Your task to perform on an android device: manage bookmarks in the chrome app Image 0: 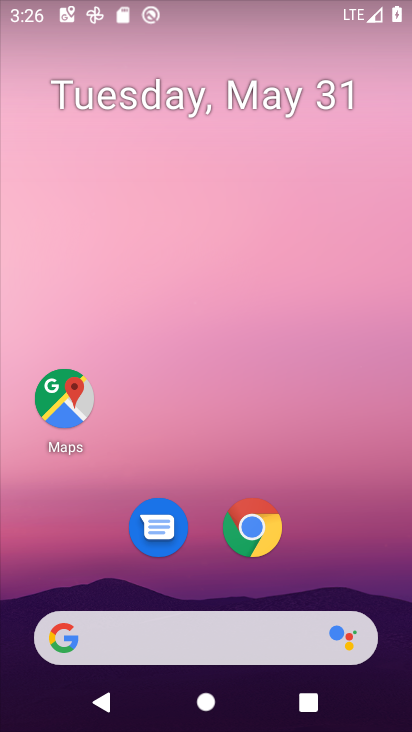
Step 0: drag from (372, 534) to (405, 114)
Your task to perform on an android device: manage bookmarks in the chrome app Image 1: 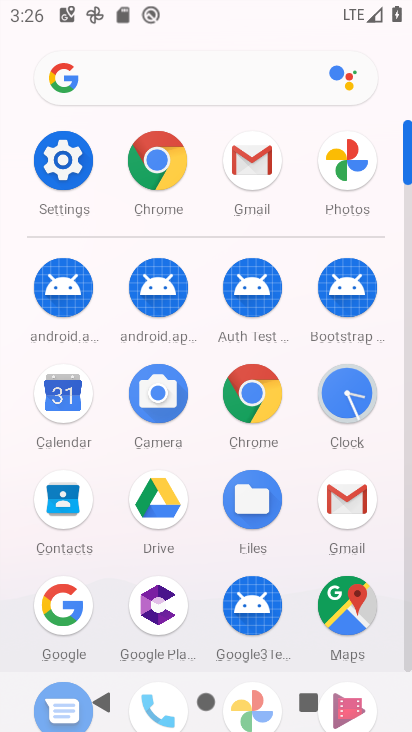
Step 1: click (158, 176)
Your task to perform on an android device: manage bookmarks in the chrome app Image 2: 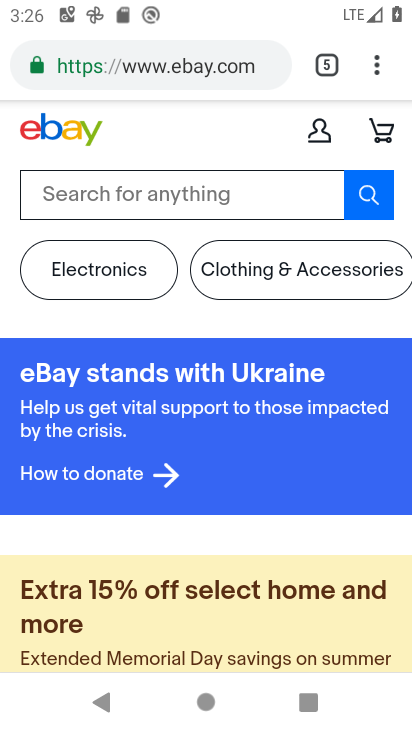
Step 2: drag from (381, 73) to (184, 259)
Your task to perform on an android device: manage bookmarks in the chrome app Image 3: 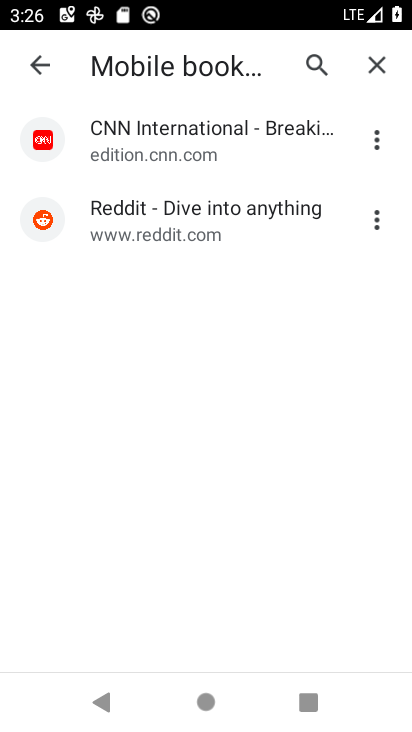
Step 3: click (241, 147)
Your task to perform on an android device: manage bookmarks in the chrome app Image 4: 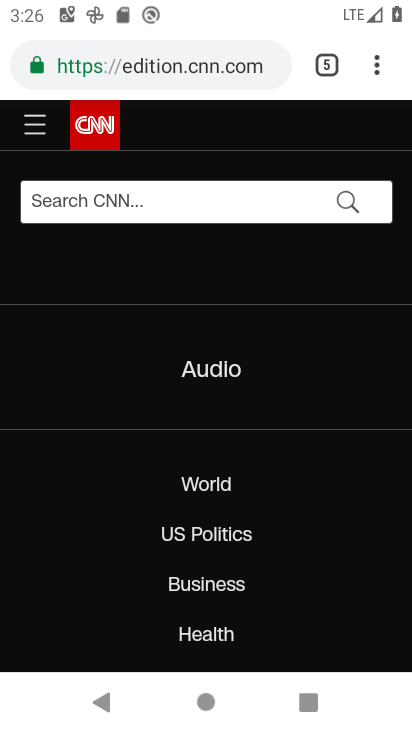
Step 4: click (374, 77)
Your task to perform on an android device: manage bookmarks in the chrome app Image 5: 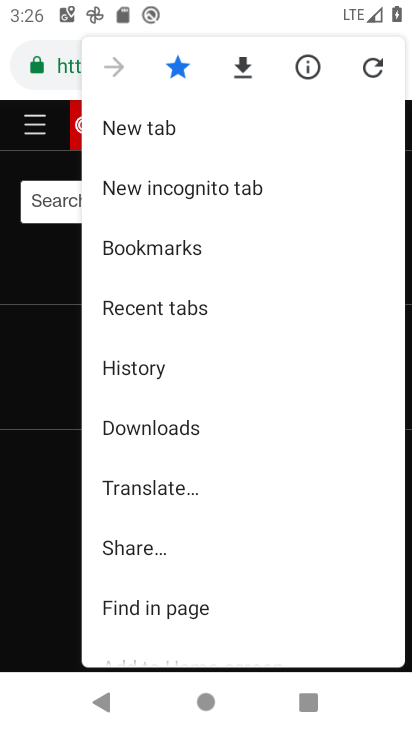
Step 5: drag from (195, 588) to (250, 257)
Your task to perform on an android device: manage bookmarks in the chrome app Image 6: 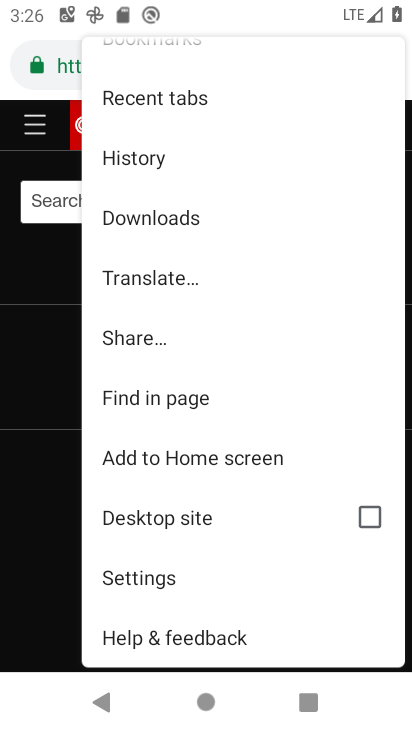
Step 6: drag from (255, 103) to (229, 618)
Your task to perform on an android device: manage bookmarks in the chrome app Image 7: 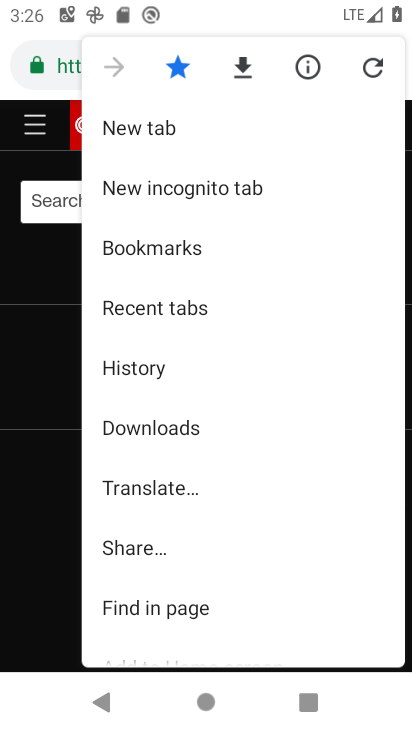
Step 7: click (27, 327)
Your task to perform on an android device: manage bookmarks in the chrome app Image 8: 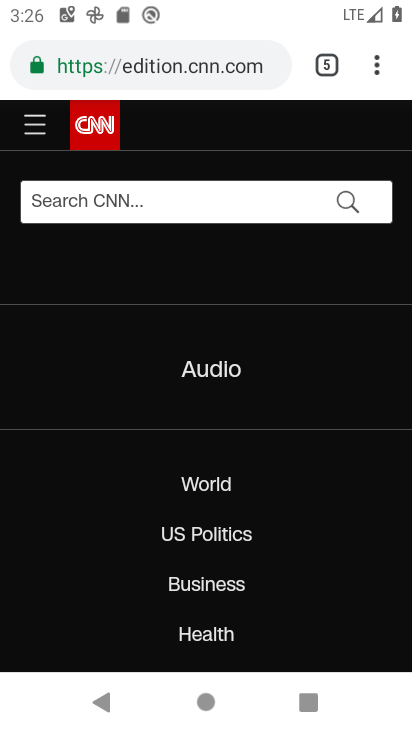
Step 8: task complete